Your task to perform on an android device: toggle javascript in the chrome app Image 0: 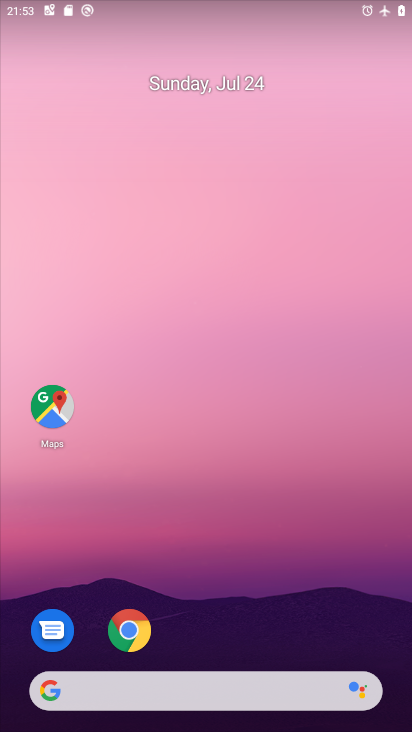
Step 0: drag from (274, 601) to (204, 7)
Your task to perform on an android device: toggle javascript in the chrome app Image 1: 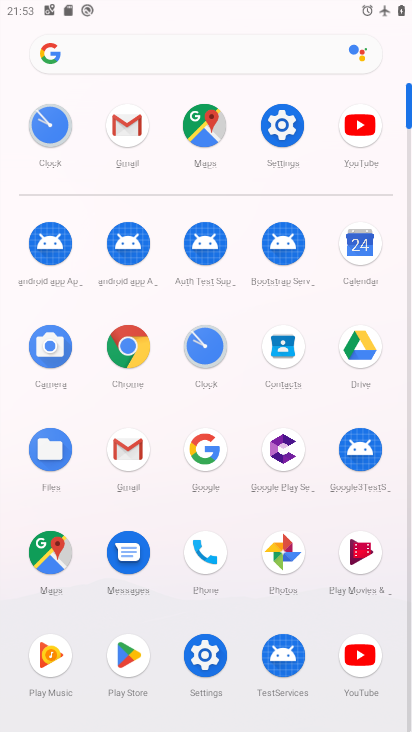
Step 1: click (199, 238)
Your task to perform on an android device: toggle javascript in the chrome app Image 2: 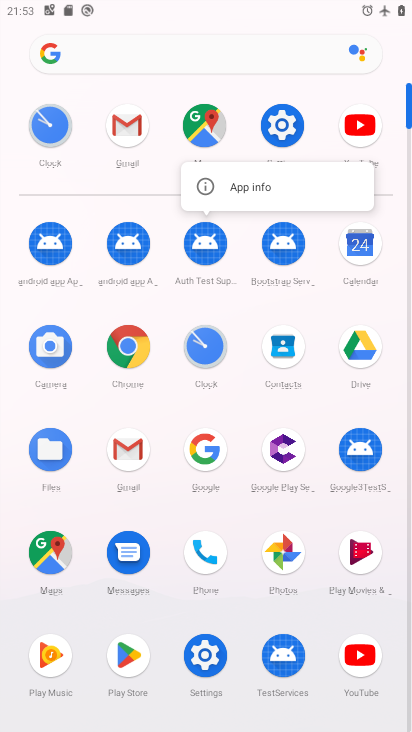
Step 2: drag from (211, 121) to (406, 428)
Your task to perform on an android device: toggle javascript in the chrome app Image 3: 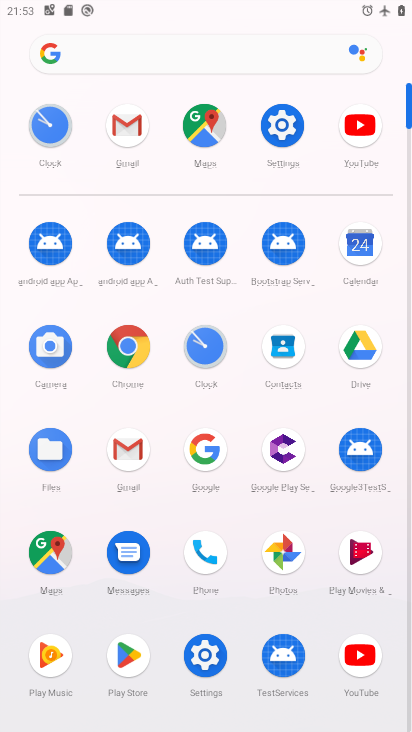
Step 3: click (122, 341)
Your task to perform on an android device: toggle javascript in the chrome app Image 4: 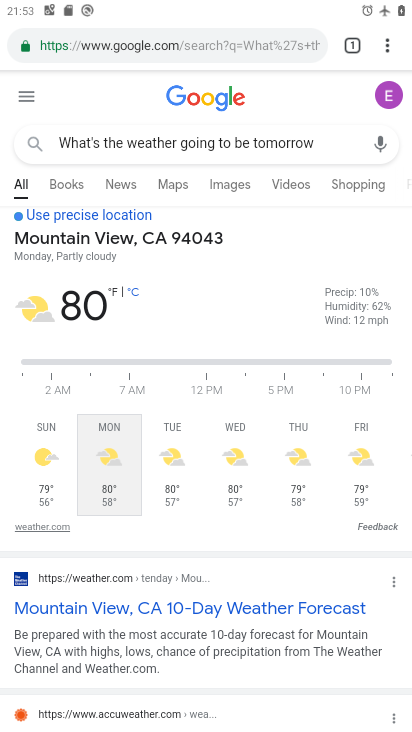
Step 4: click (389, 46)
Your task to perform on an android device: toggle javascript in the chrome app Image 5: 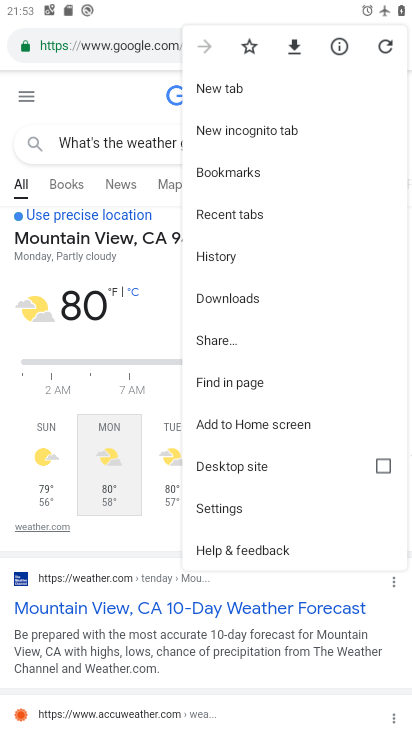
Step 5: click (233, 508)
Your task to perform on an android device: toggle javascript in the chrome app Image 6: 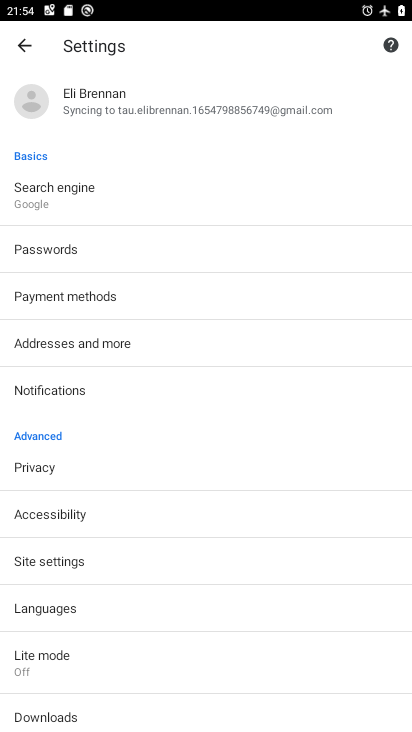
Step 6: click (97, 565)
Your task to perform on an android device: toggle javascript in the chrome app Image 7: 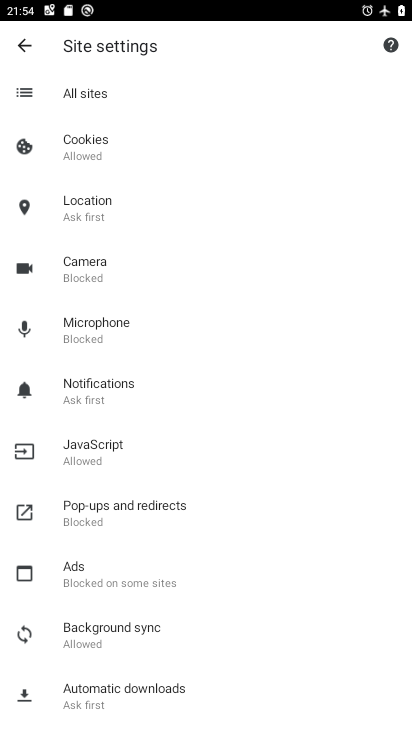
Step 7: click (124, 452)
Your task to perform on an android device: toggle javascript in the chrome app Image 8: 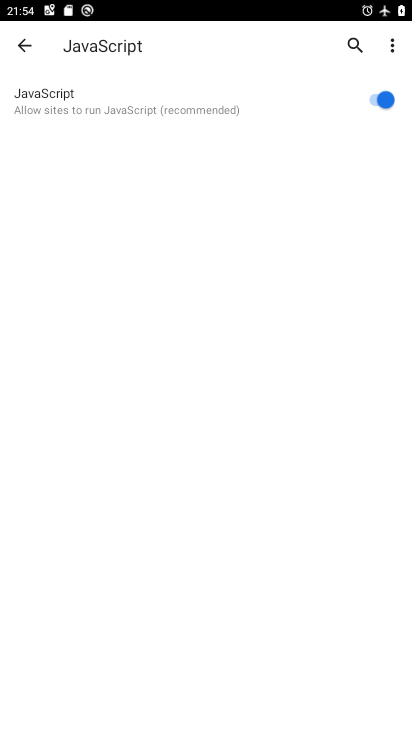
Step 8: task complete